Your task to perform on an android device: What's on my calendar tomorrow? Image 0: 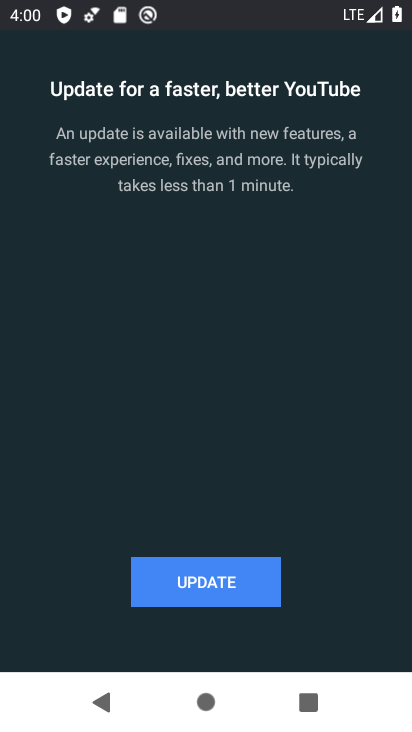
Step 0: press home button
Your task to perform on an android device: What's on my calendar tomorrow? Image 1: 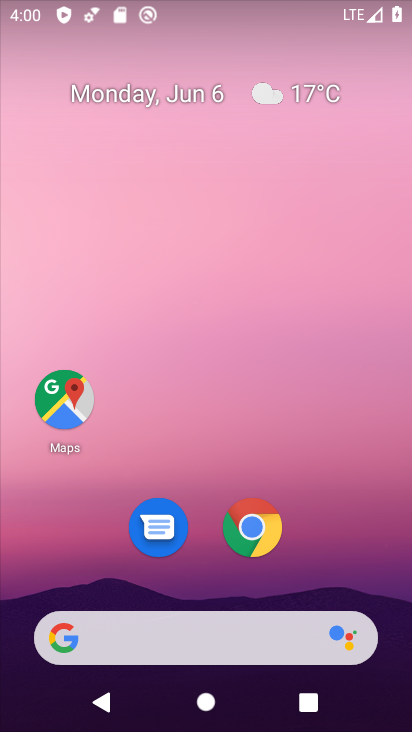
Step 1: drag from (340, 497) to (399, 76)
Your task to perform on an android device: What's on my calendar tomorrow? Image 2: 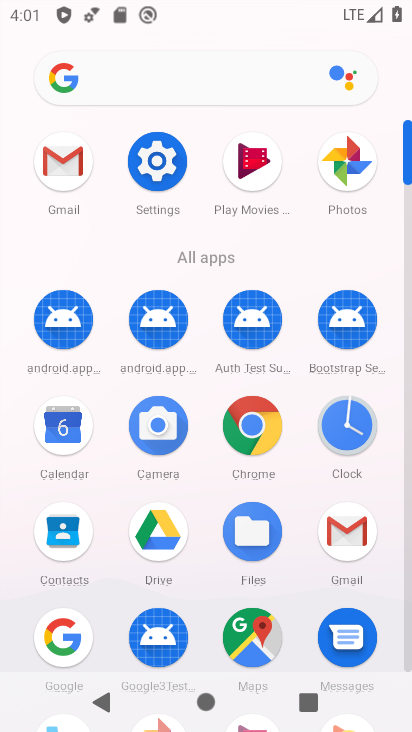
Step 2: click (65, 442)
Your task to perform on an android device: What's on my calendar tomorrow? Image 3: 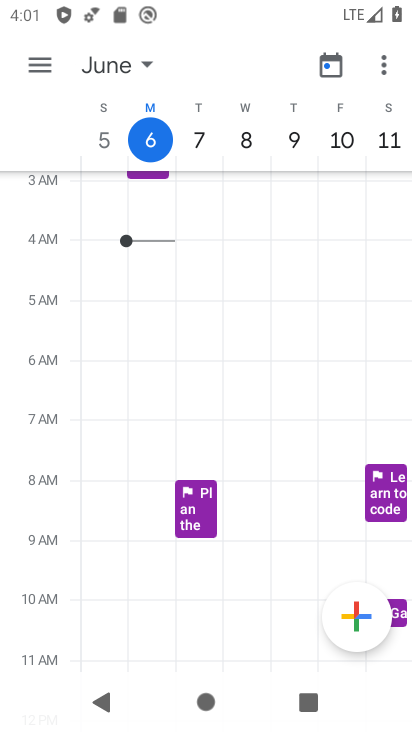
Step 3: click (201, 131)
Your task to perform on an android device: What's on my calendar tomorrow? Image 4: 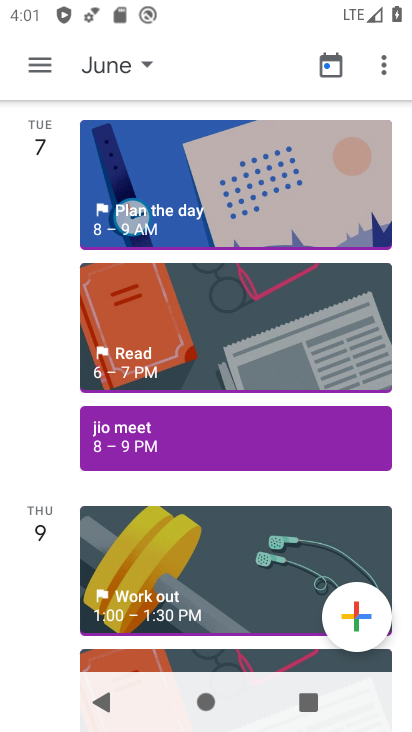
Step 4: task complete